Your task to perform on an android device: visit the assistant section in the google photos Image 0: 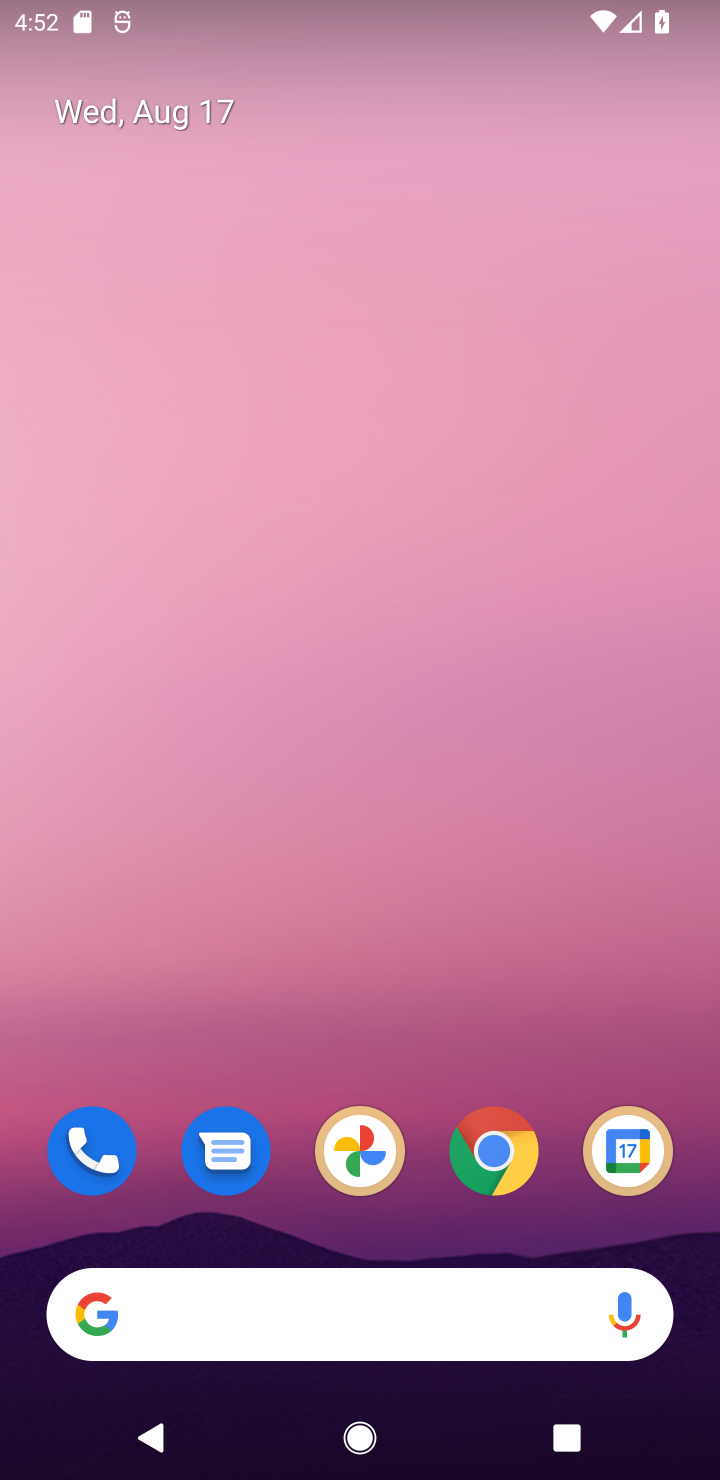
Step 0: click (369, 1148)
Your task to perform on an android device: visit the assistant section in the google photos Image 1: 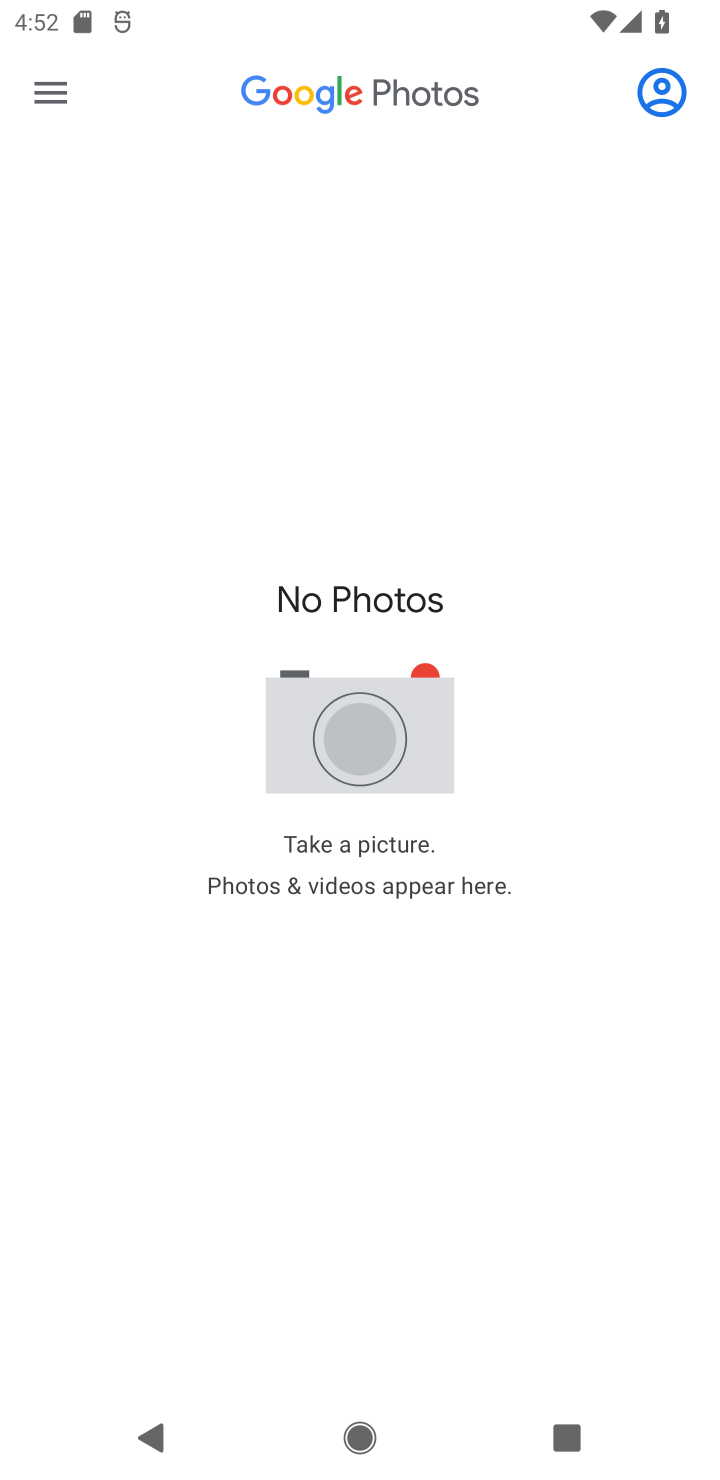
Step 1: task complete